Your task to perform on an android device: turn off picture-in-picture Image 0: 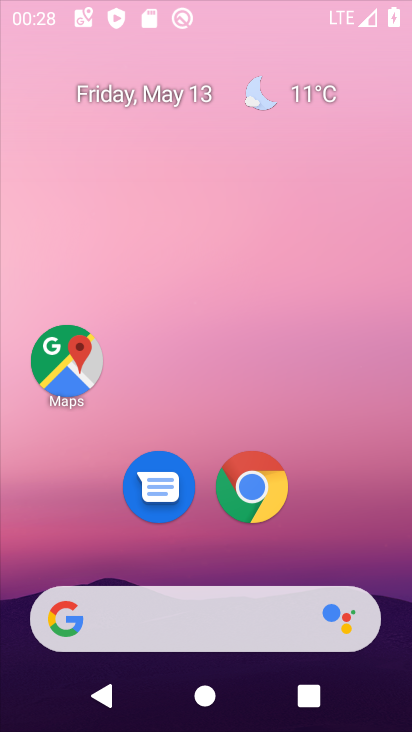
Step 0: click (180, 156)
Your task to perform on an android device: turn off picture-in-picture Image 1: 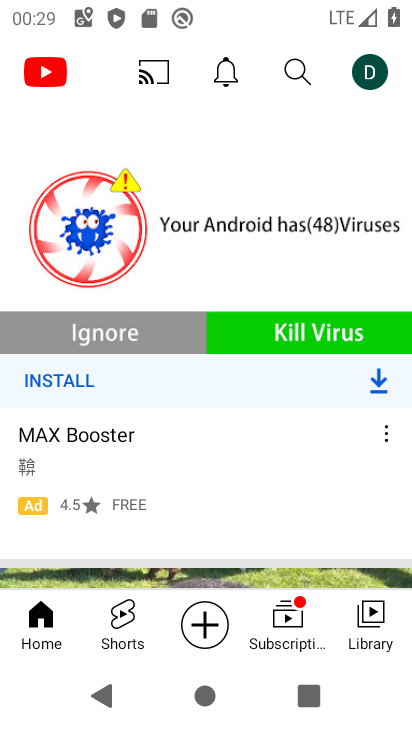
Step 1: press home button
Your task to perform on an android device: turn off picture-in-picture Image 2: 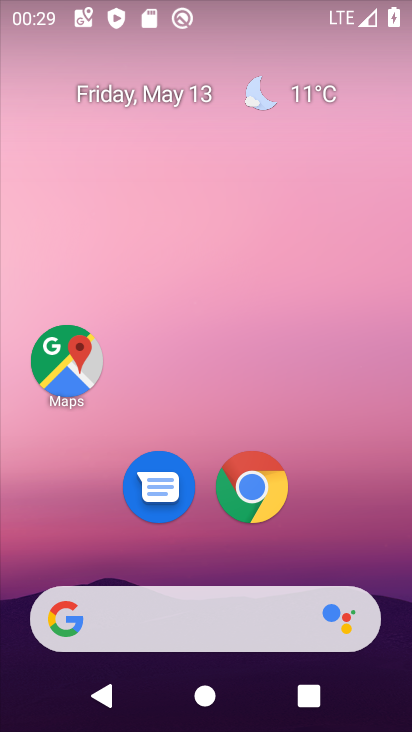
Step 2: click (242, 484)
Your task to perform on an android device: turn off picture-in-picture Image 3: 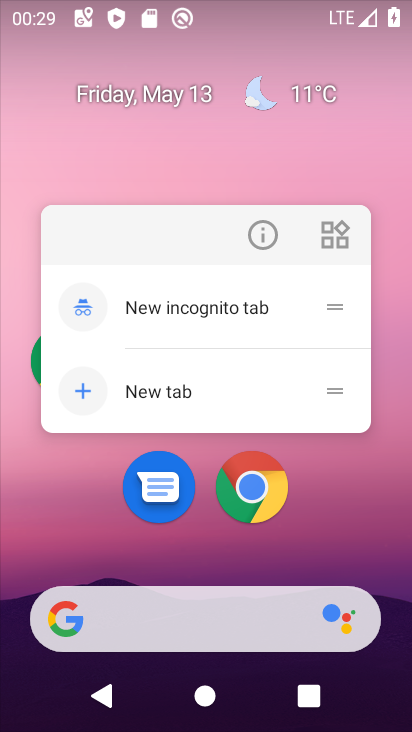
Step 3: click (258, 221)
Your task to perform on an android device: turn off picture-in-picture Image 4: 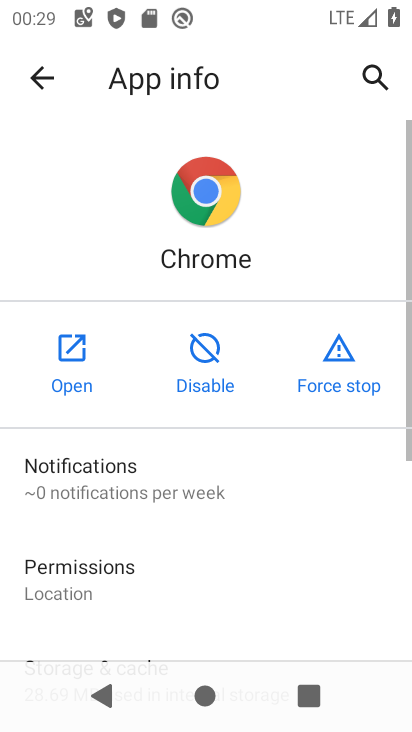
Step 4: drag from (136, 609) to (188, 136)
Your task to perform on an android device: turn off picture-in-picture Image 5: 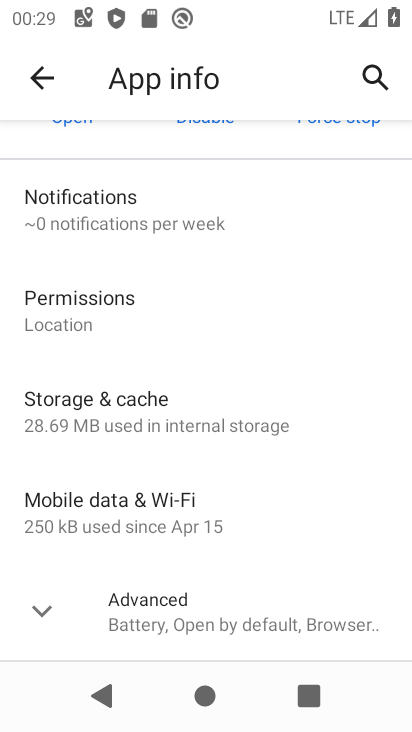
Step 5: drag from (125, 598) to (184, 219)
Your task to perform on an android device: turn off picture-in-picture Image 6: 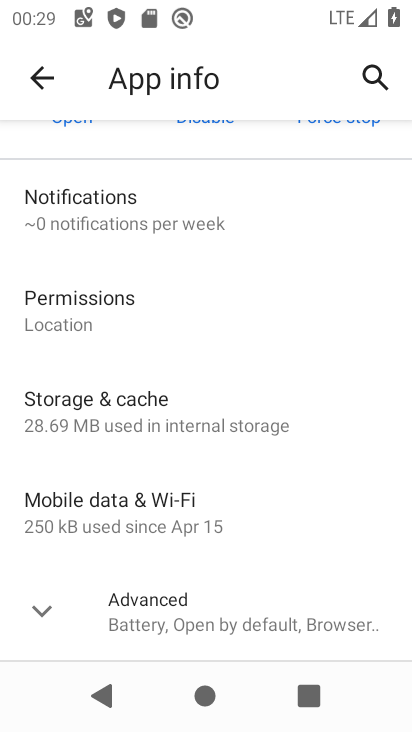
Step 6: click (159, 631)
Your task to perform on an android device: turn off picture-in-picture Image 7: 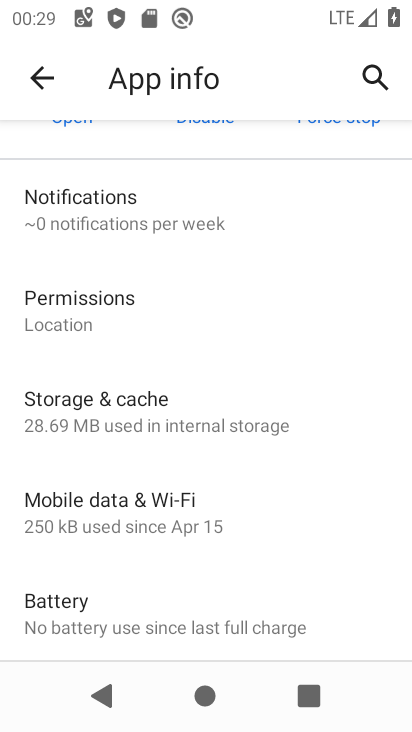
Step 7: drag from (159, 631) to (255, 137)
Your task to perform on an android device: turn off picture-in-picture Image 8: 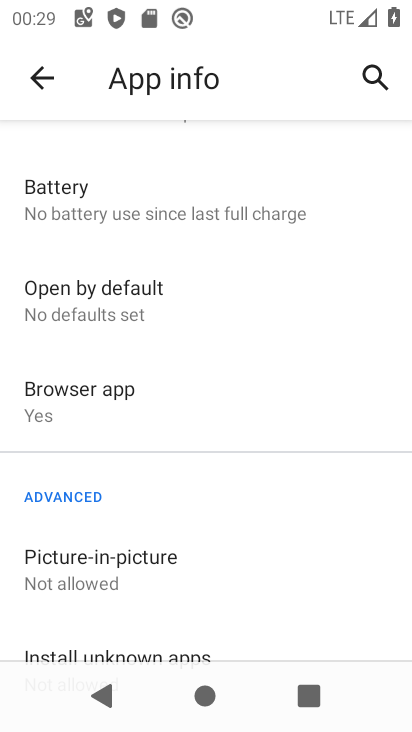
Step 8: click (114, 569)
Your task to perform on an android device: turn off picture-in-picture Image 9: 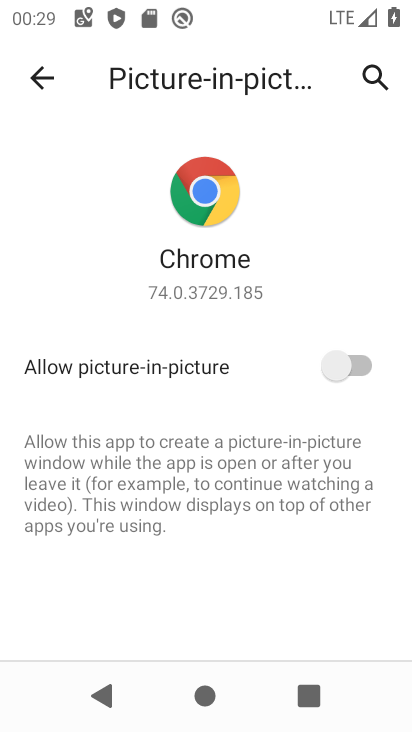
Step 9: task complete